Your task to perform on an android device: turn on the 12-hour format for clock Image 0: 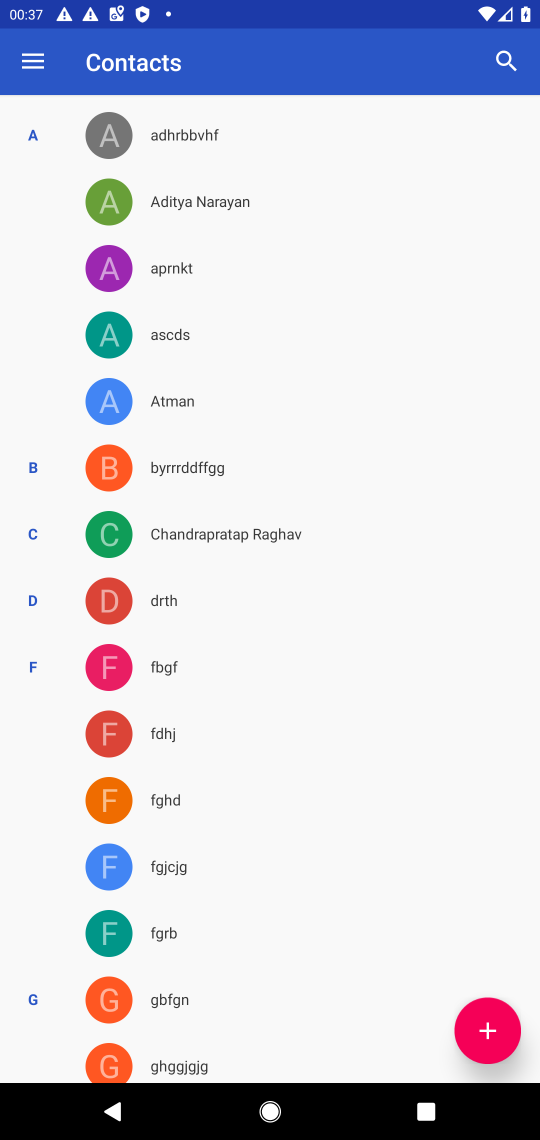
Step 0: press home button
Your task to perform on an android device: turn on the 12-hour format for clock Image 1: 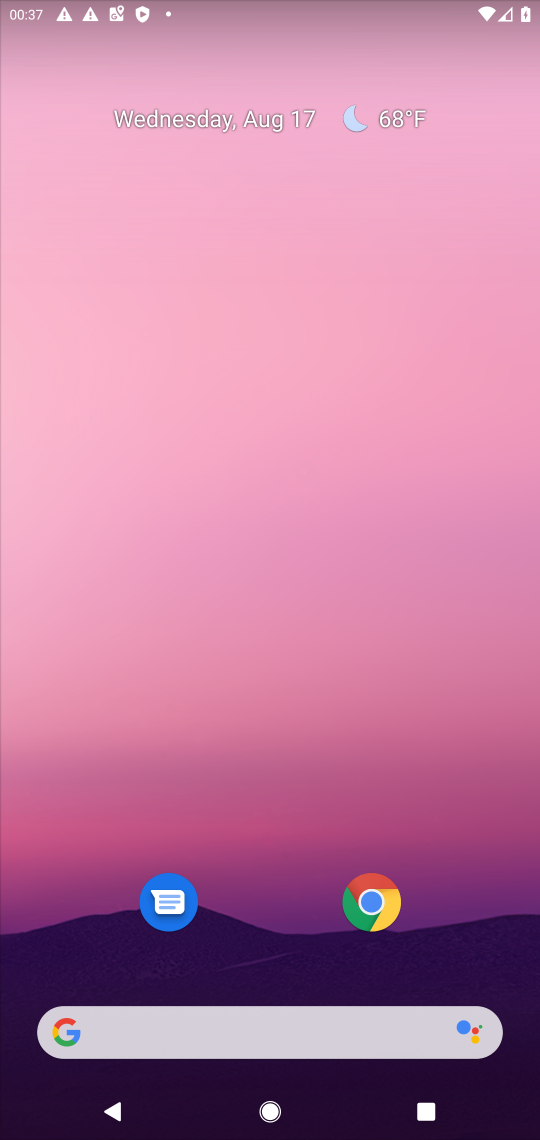
Step 1: drag from (268, 914) to (389, 37)
Your task to perform on an android device: turn on the 12-hour format for clock Image 2: 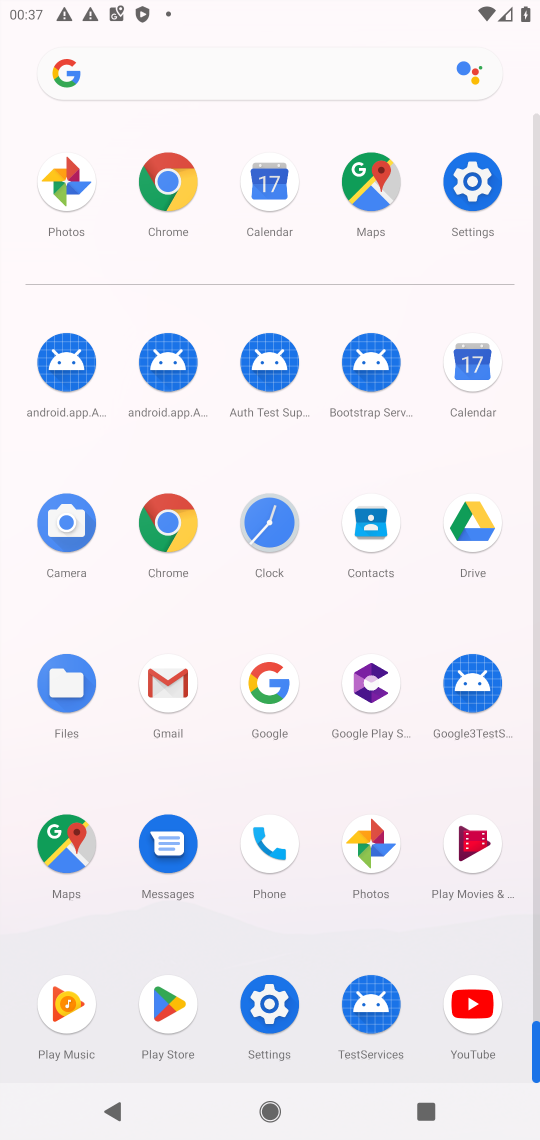
Step 2: click (253, 1014)
Your task to perform on an android device: turn on the 12-hour format for clock Image 3: 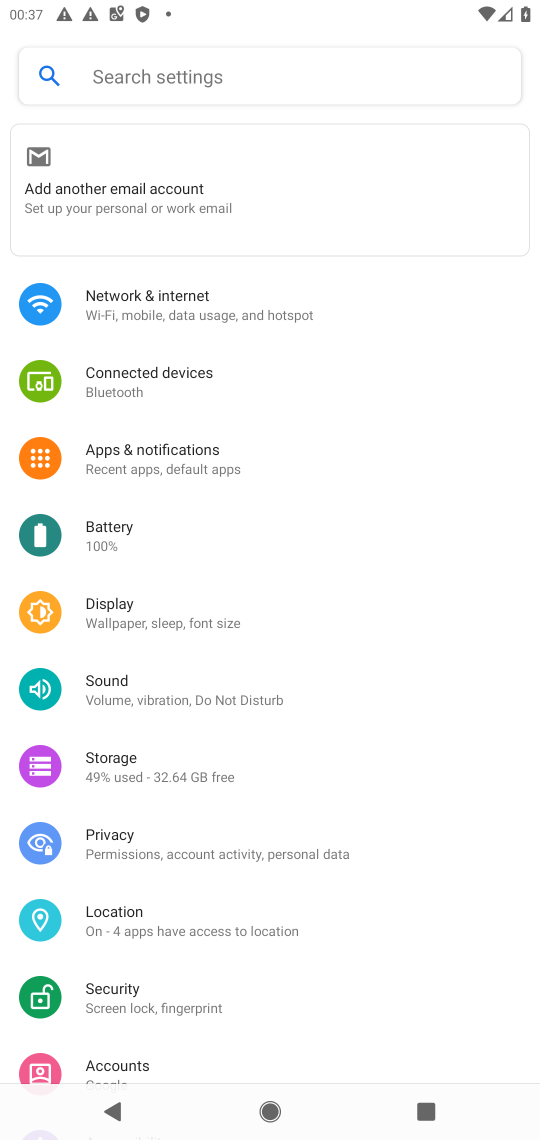
Step 3: drag from (160, 963) to (276, 345)
Your task to perform on an android device: turn on the 12-hour format for clock Image 4: 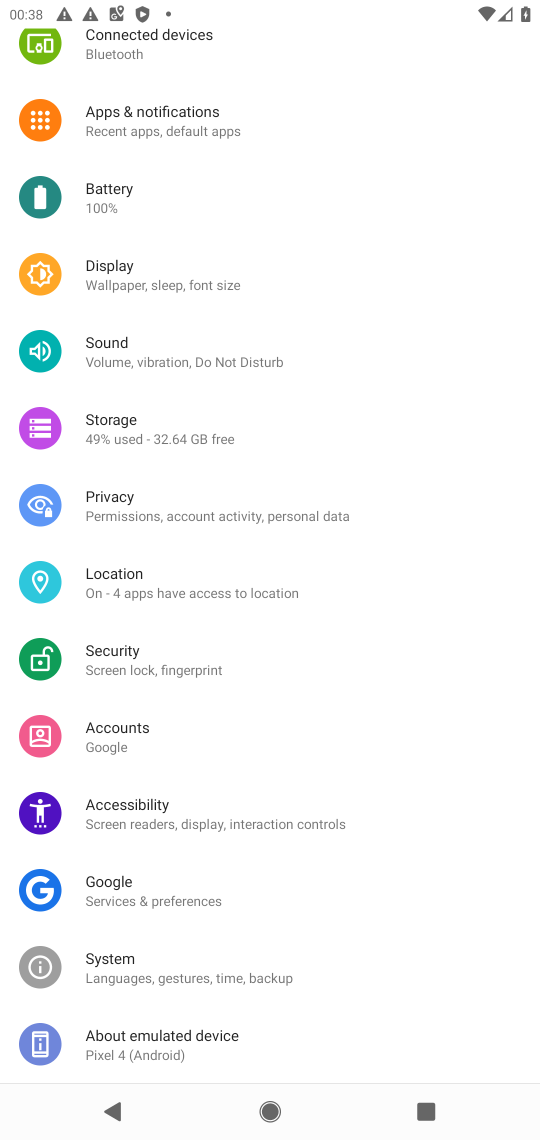
Step 4: click (156, 970)
Your task to perform on an android device: turn on the 12-hour format for clock Image 5: 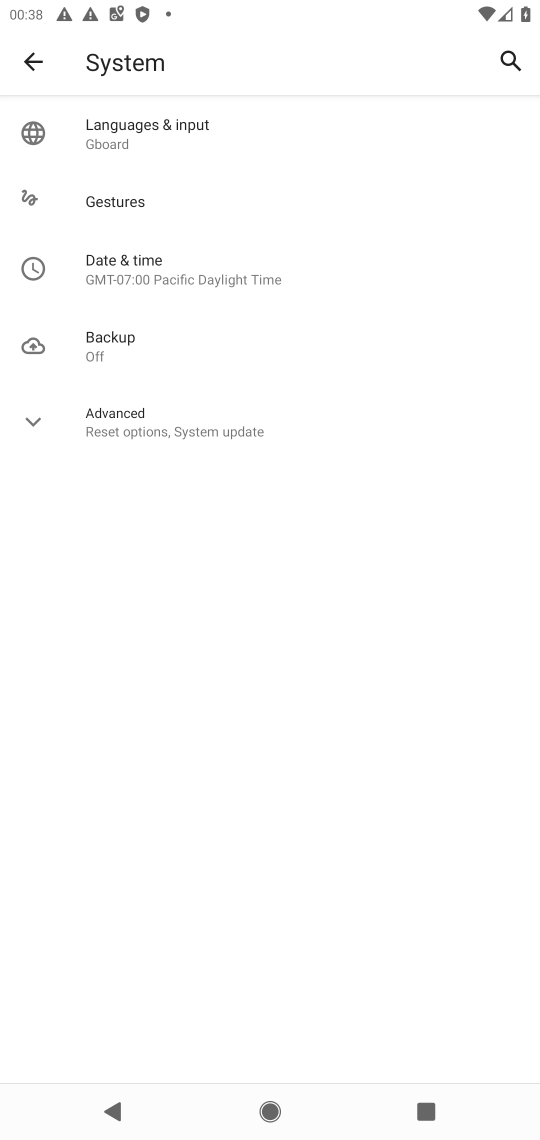
Step 5: click (157, 256)
Your task to perform on an android device: turn on the 12-hour format for clock Image 6: 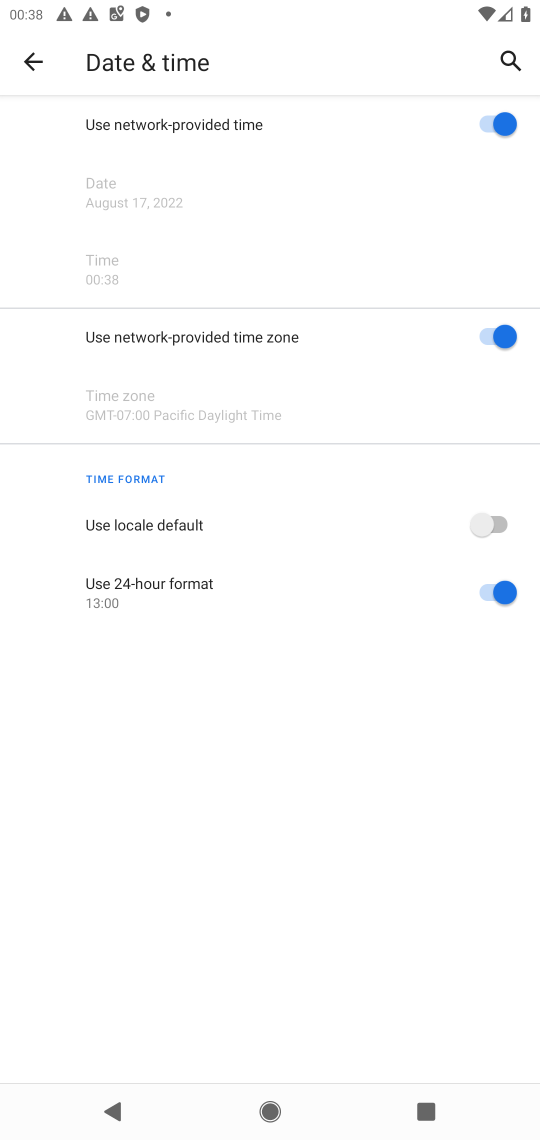
Step 6: click (505, 520)
Your task to perform on an android device: turn on the 12-hour format for clock Image 7: 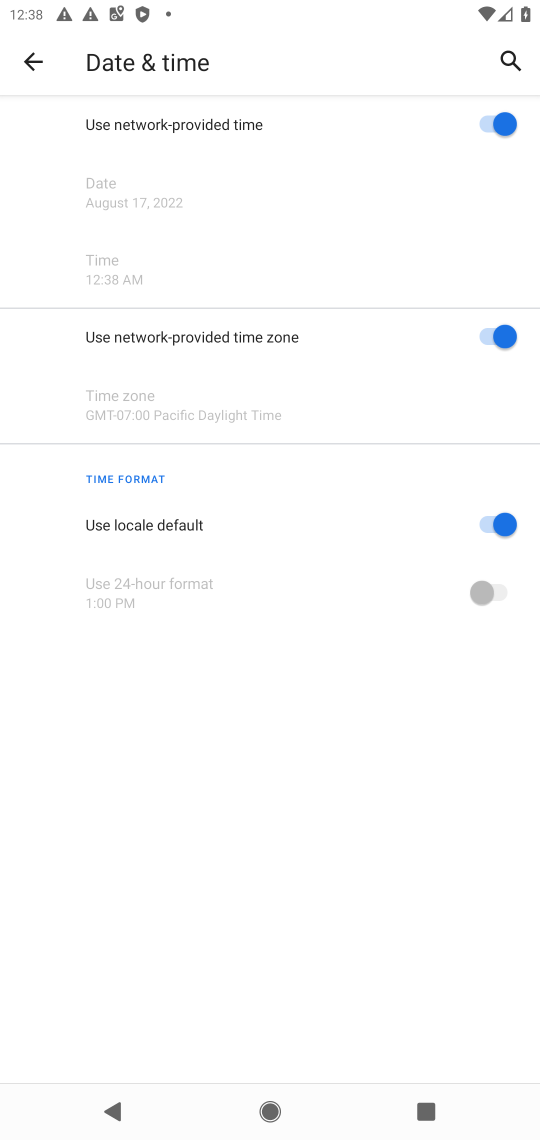
Step 7: task complete